Your task to perform on an android device: Open the stopwatch Image 0: 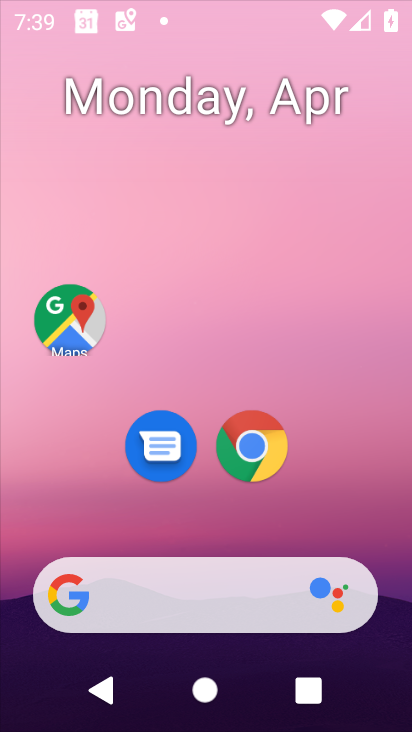
Step 0: drag from (390, 651) to (259, 20)
Your task to perform on an android device: Open the stopwatch Image 1: 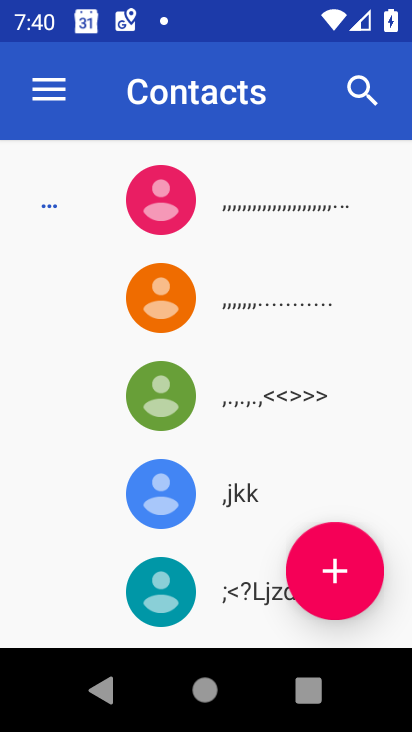
Step 1: press back button
Your task to perform on an android device: Open the stopwatch Image 2: 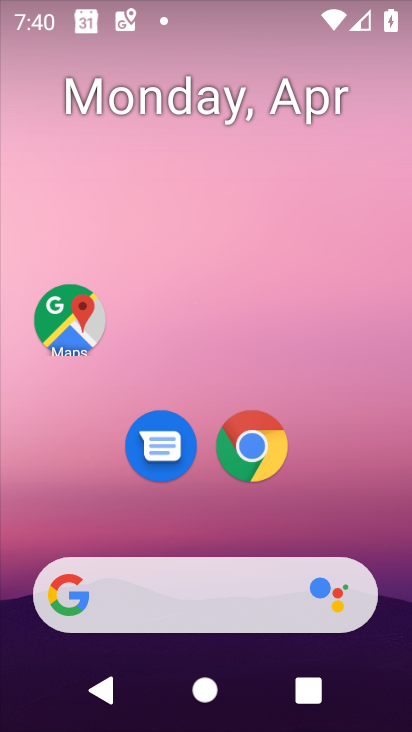
Step 2: drag from (374, 556) to (316, 40)
Your task to perform on an android device: Open the stopwatch Image 3: 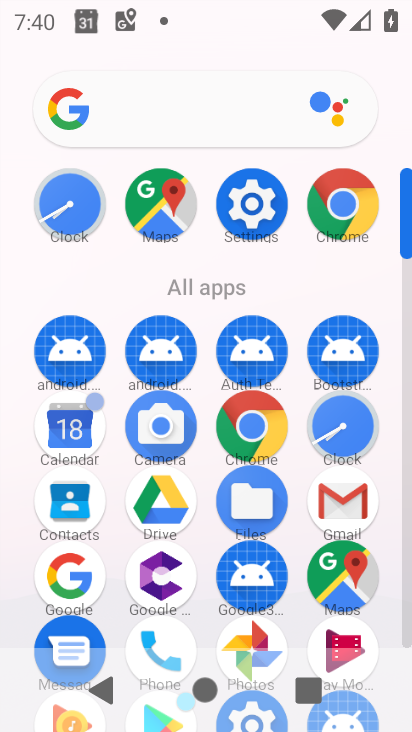
Step 3: drag from (0, 535) to (2, 211)
Your task to perform on an android device: Open the stopwatch Image 4: 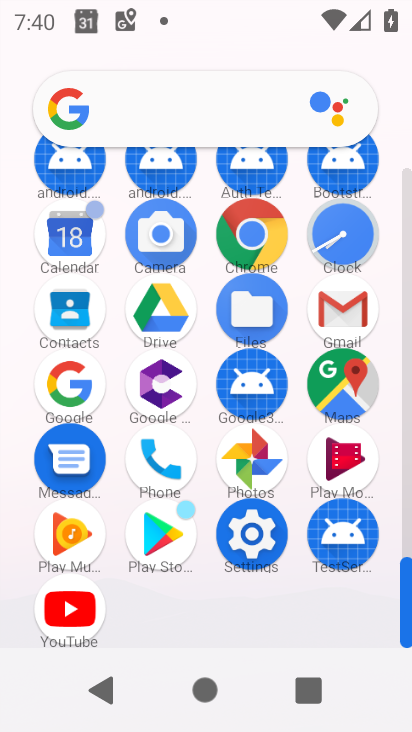
Step 4: click (347, 226)
Your task to perform on an android device: Open the stopwatch Image 5: 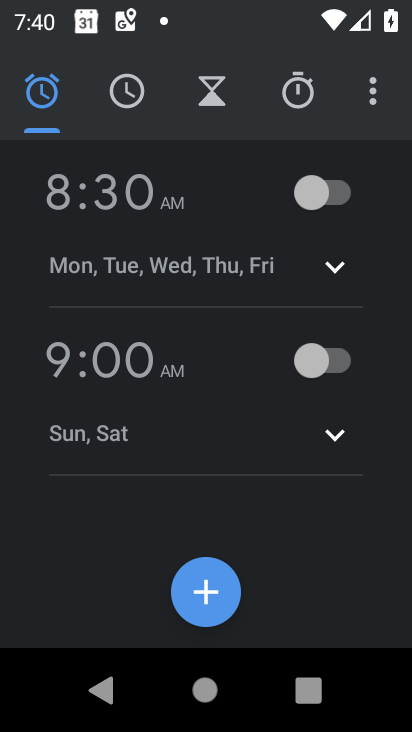
Step 5: click (283, 71)
Your task to perform on an android device: Open the stopwatch Image 6: 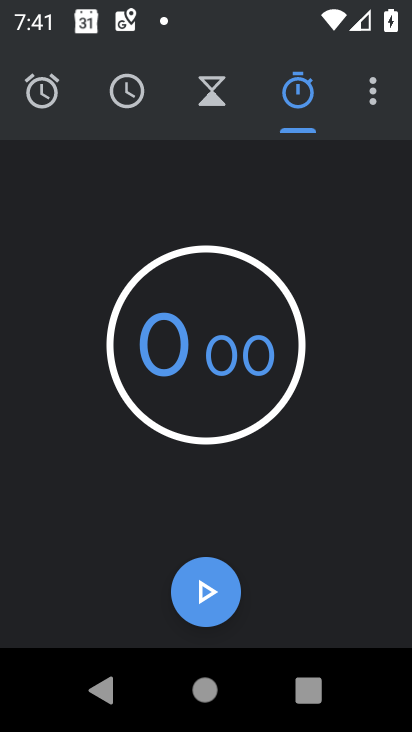
Step 6: task complete